Your task to perform on an android device: empty trash in the gmail app Image 0: 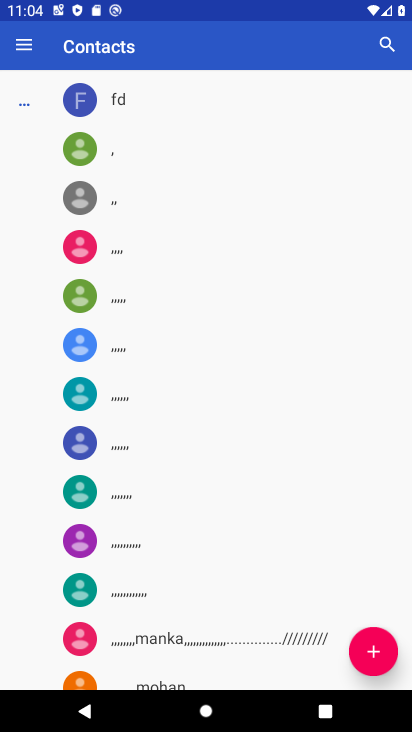
Step 0: press home button
Your task to perform on an android device: empty trash in the gmail app Image 1: 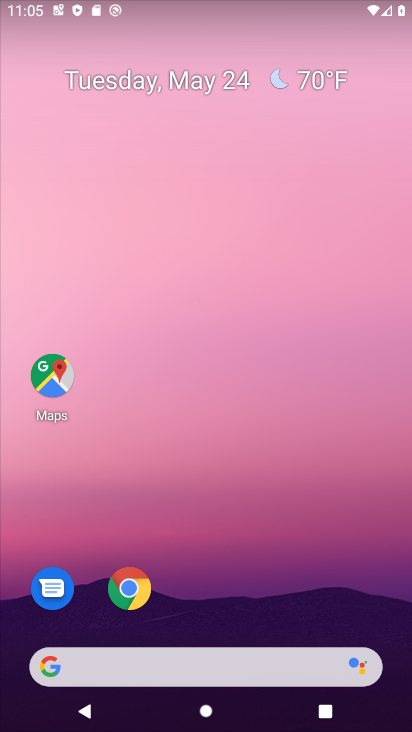
Step 1: drag from (199, 628) to (195, 50)
Your task to perform on an android device: empty trash in the gmail app Image 2: 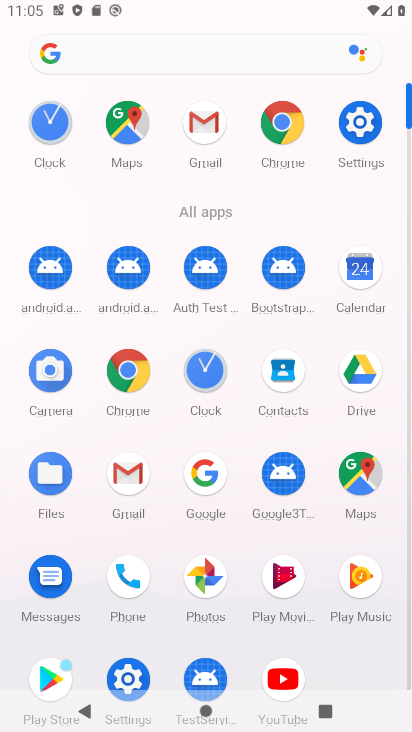
Step 2: click (202, 114)
Your task to perform on an android device: empty trash in the gmail app Image 3: 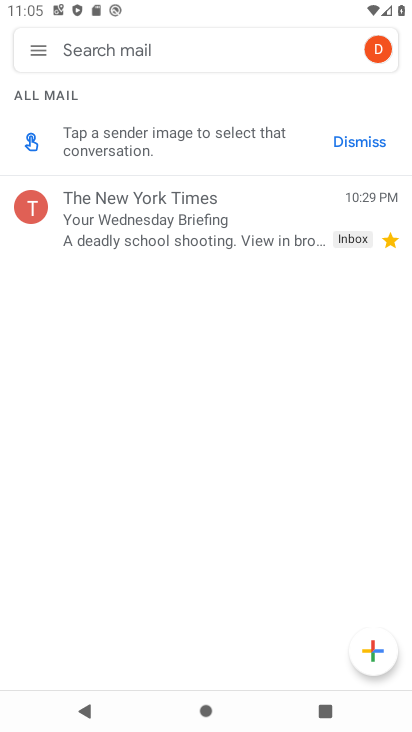
Step 3: click (32, 47)
Your task to perform on an android device: empty trash in the gmail app Image 4: 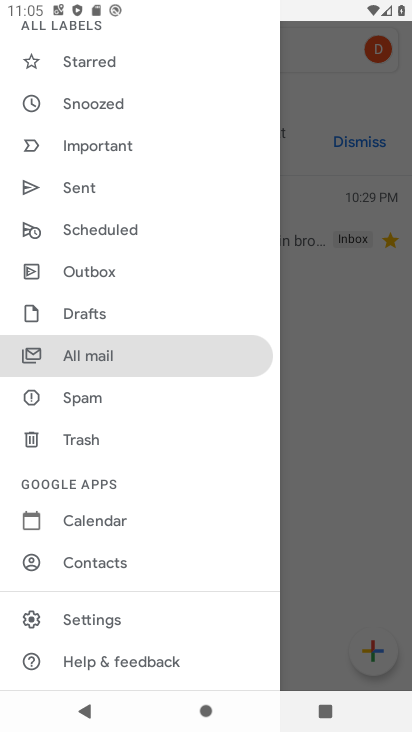
Step 4: click (93, 435)
Your task to perform on an android device: empty trash in the gmail app Image 5: 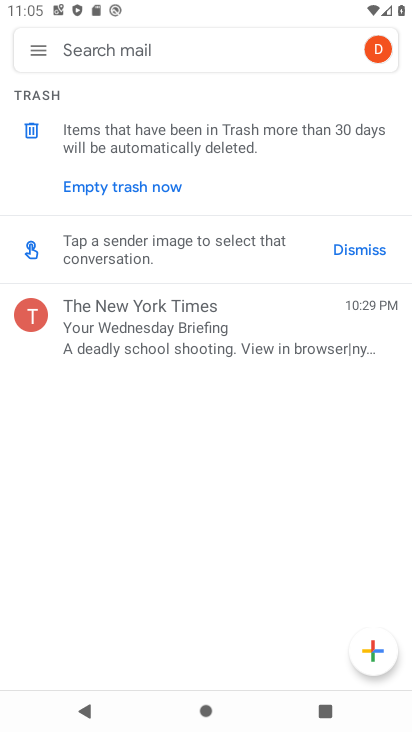
Step 5: click (128, 188)
Your task to perform on an android device: empty trash in the gmail app Image 6: 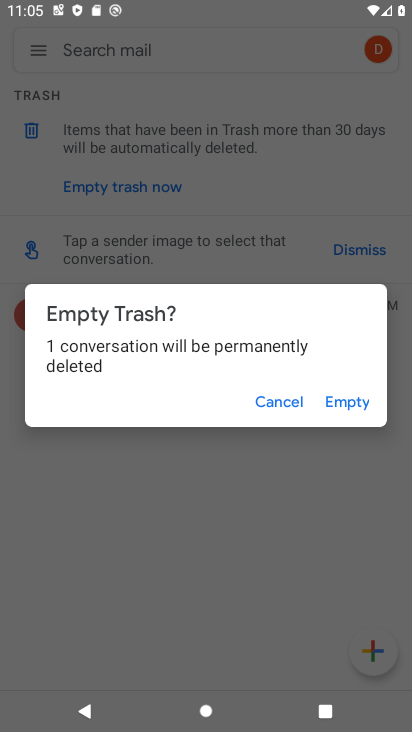
Step 6: click (359, 404)
Your task to perform on an android device: empty trash in the gmail app Image 7: 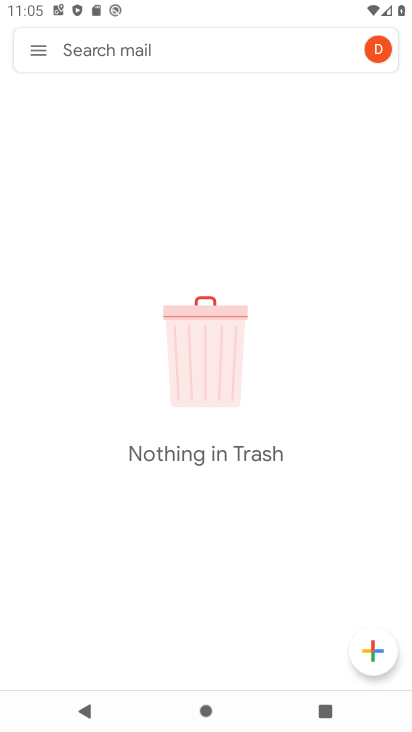
Step 7: task complete